Your task to perform on an android device: Open my contact list Image 0: 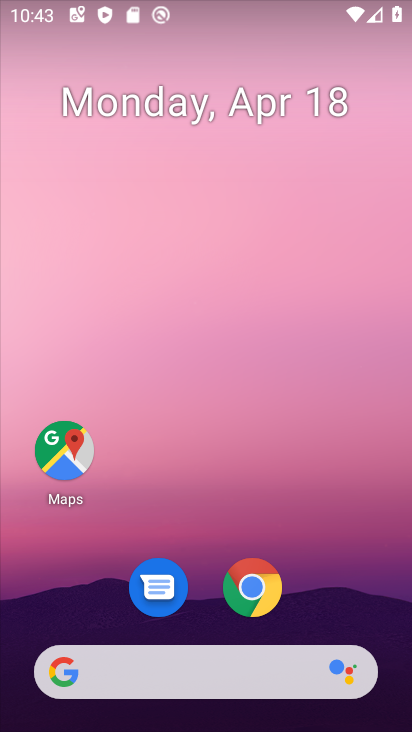
Step 0: drag from (384, 558) to (381, 80)
Your task to perform on an android device: Open my contact list Image 1: 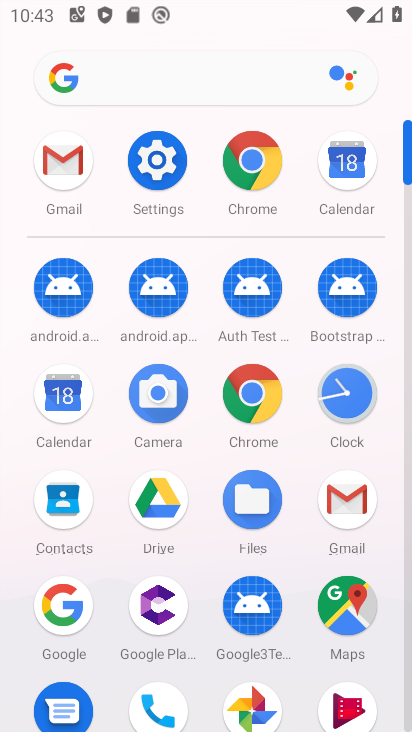
Step 1: click (55, 506)
Your task to perform on an android device: Open my contact list Image 2: 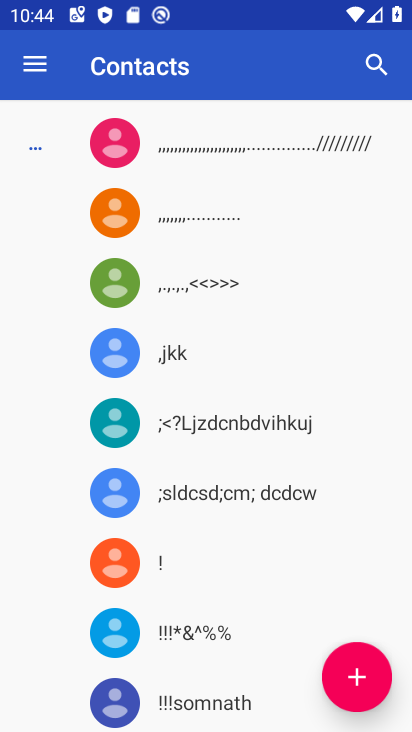
Step 2: task complete